Your task to perform on an android device: Go to ESPN.com Image 0: 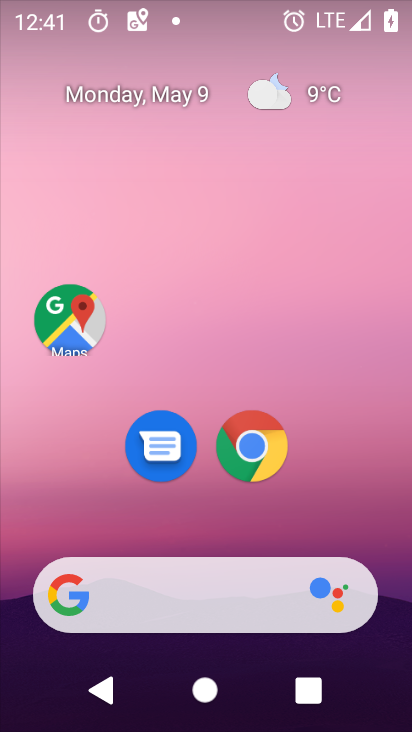
Step 0: click (248, 443)
Your task to perform on an android device: Go to ESPN.com Image 1: 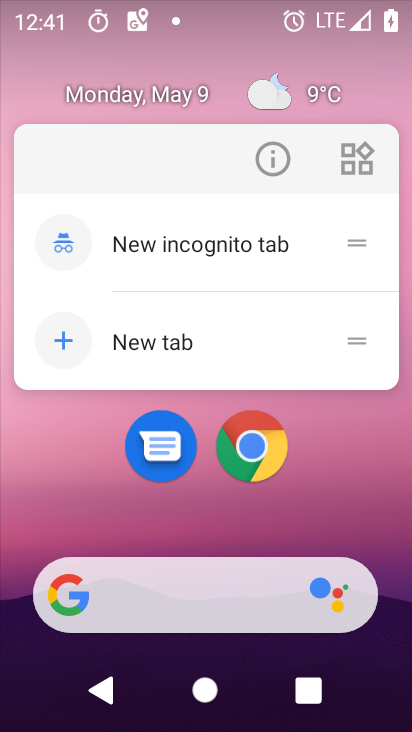
Step 1: click (256, 449)
Your task to perform on an android device: Go to ESPN.com Image 2: 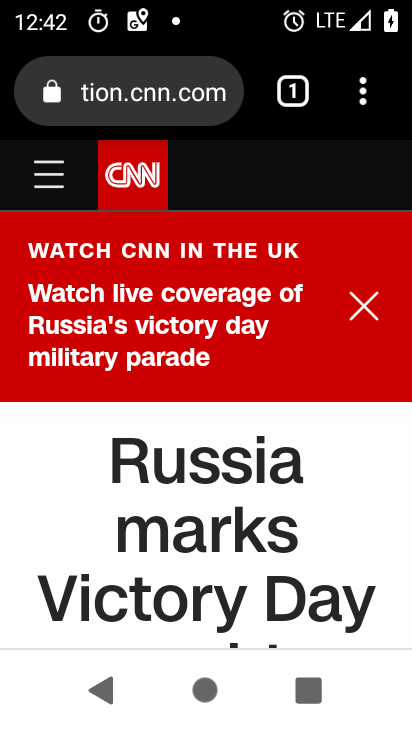
Step 2: click (96, 81)
Your task to perform on an android device: Go to ESPN.com Image 3: 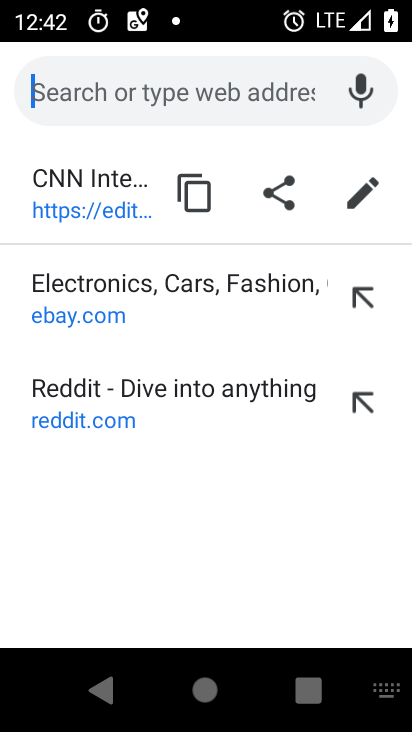
Step 3: type "espn.com"
Your task to perform on an android device: Go to ESPN.com Image 4: 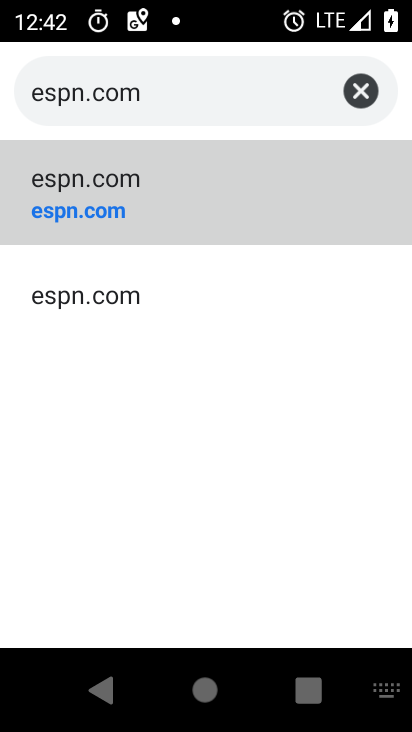
Step 4: click (74, 203)
Your task to perform on an android device: Go to ESPN.com Image 5: 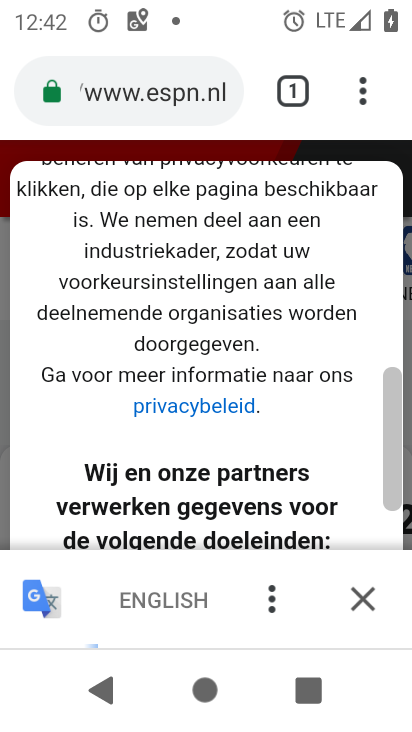
Step 5: click (376, 606)
Your task to perform on an android device: Go to ESPN.com Image 6: 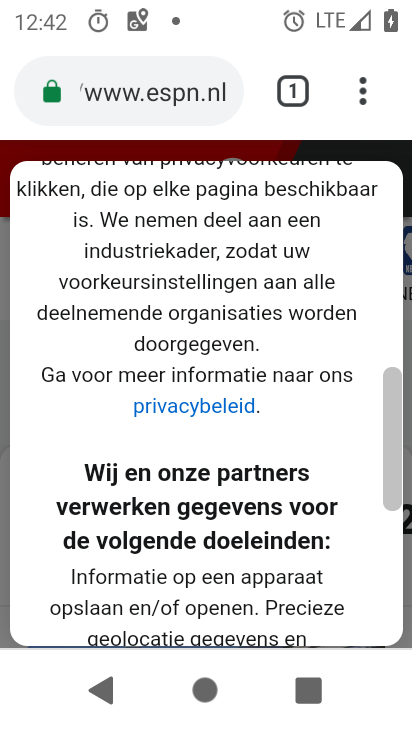
Step 6: task complete